Your task to perform on an android device: Go to internet settings Image 0: 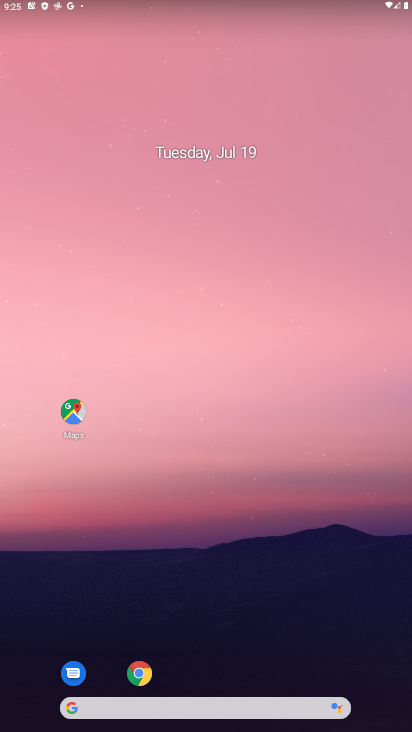
Step 0: drag from (252, 648) to (119, 148)
Your task to perform on an android device: Go to internet settings Image 1: 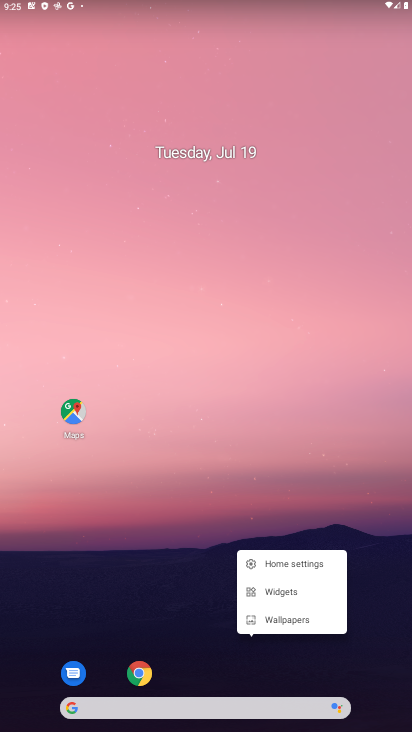
Step 1: click (128, 362)
Your task to perform on an android device: Go to internet settings Image 2: 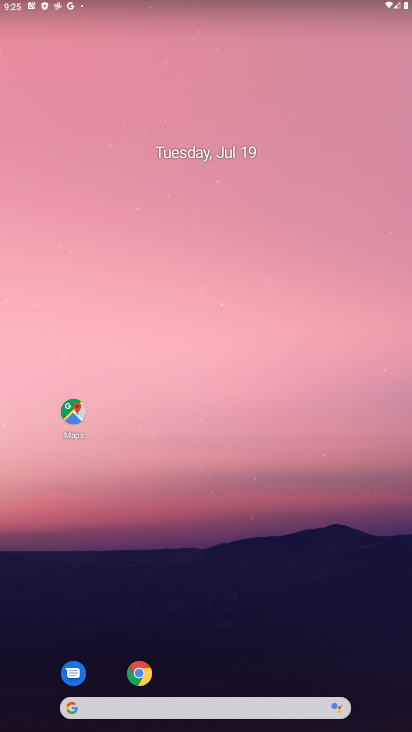
Step 2: drag from (210, 674) to (174, 54)
Your task to perform on an android device: Go to internet settings Image 3: 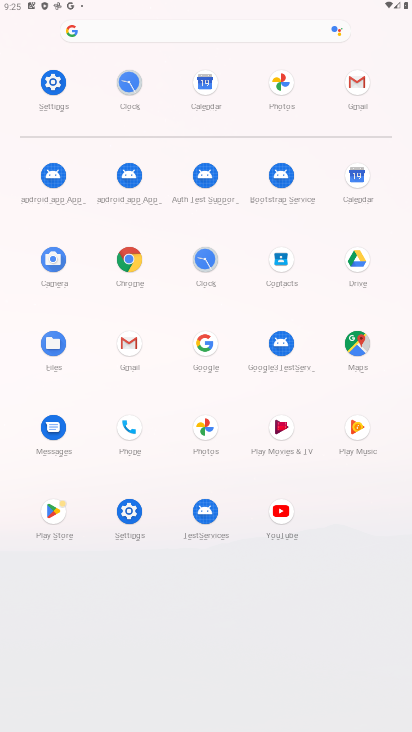
Step 3: click (23, 81)
Your task to perform on an android device: Go to internet settings Image 4: 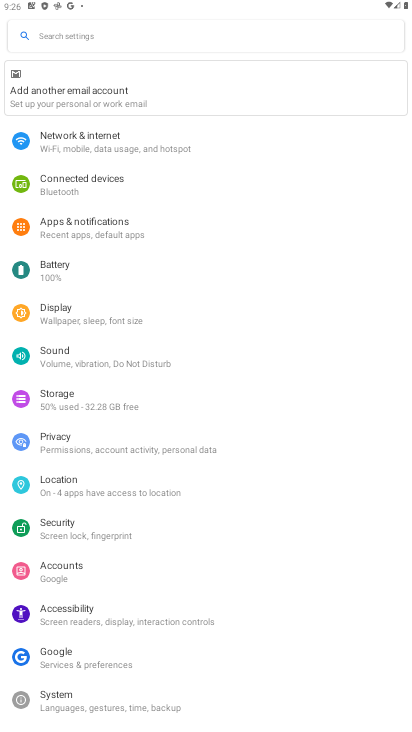
Step 4: click (190, 150)
Your task to perform on an android device: Go to internet settings Image 5: 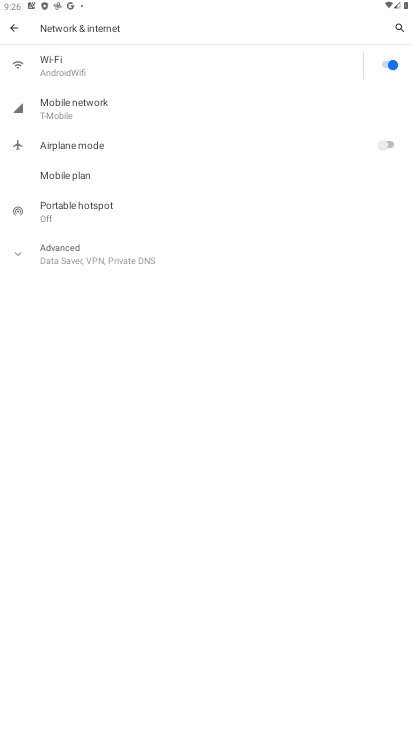
Step 5: task complete